Your task to perform on an android device: toggle javascript in the chrome app Image 0: 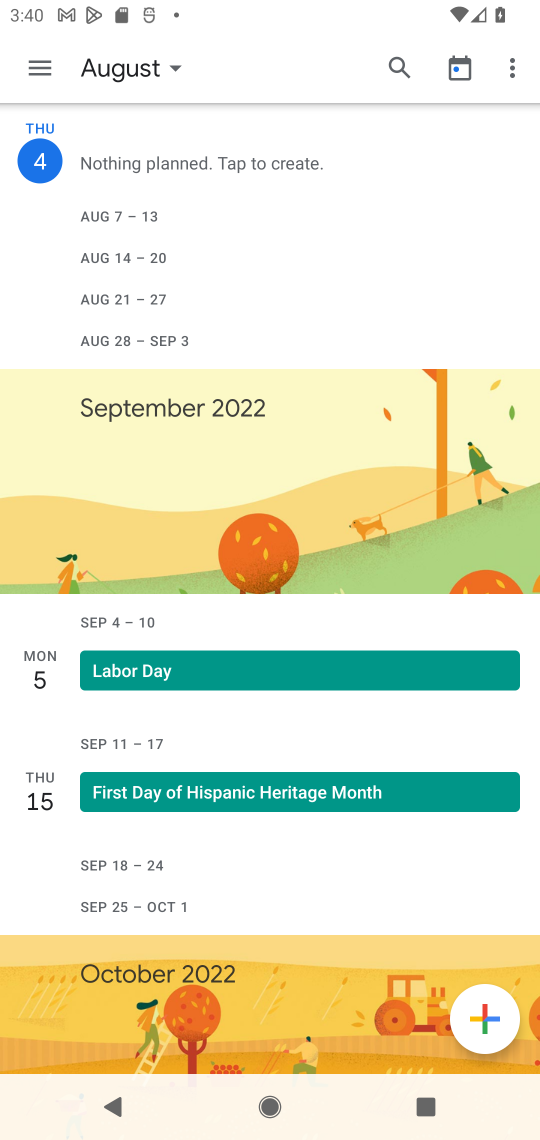
Step 0: press home button
Your task to perform on an android device: toggle javascript in the chrome app Image 1: 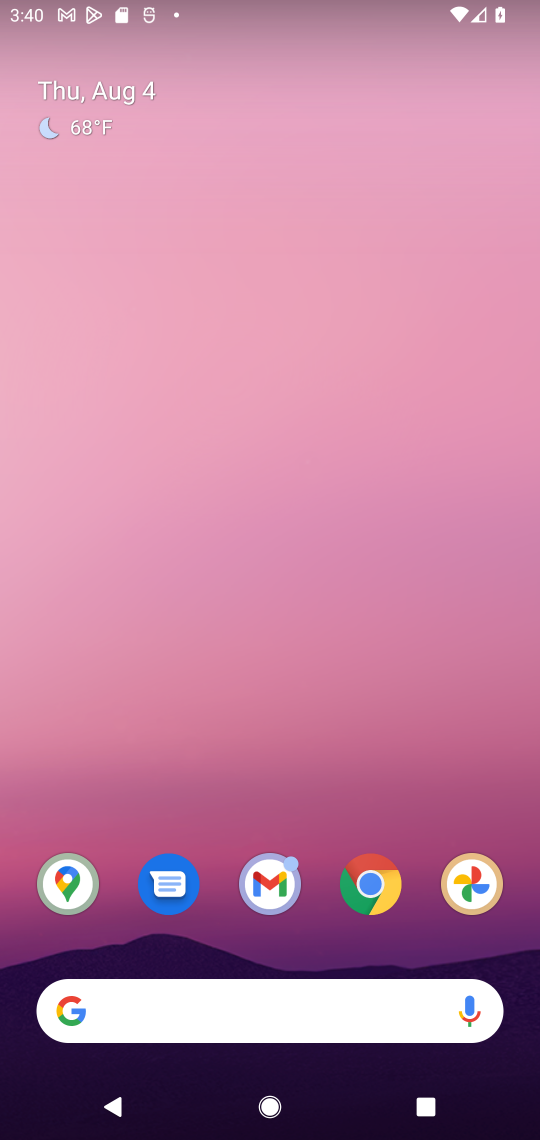
Step 1: click (366, 886)
Your task to perform on an android device: toggle javascript in the chrome app Image 2: 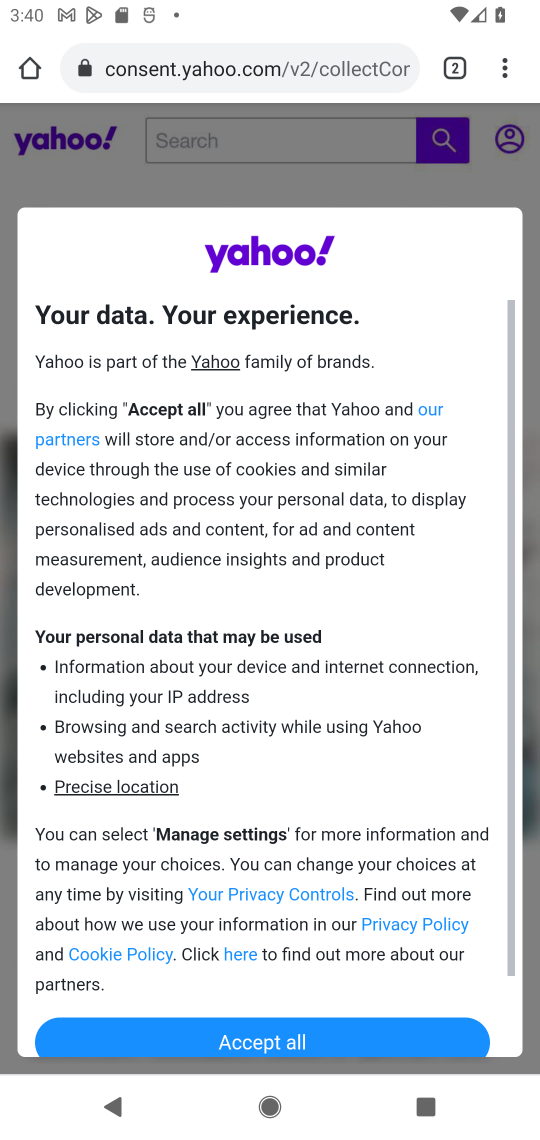
Step 2: click (503, 83)
Your task to perform on an android device: toggle javascript in the chrome app Image 3: 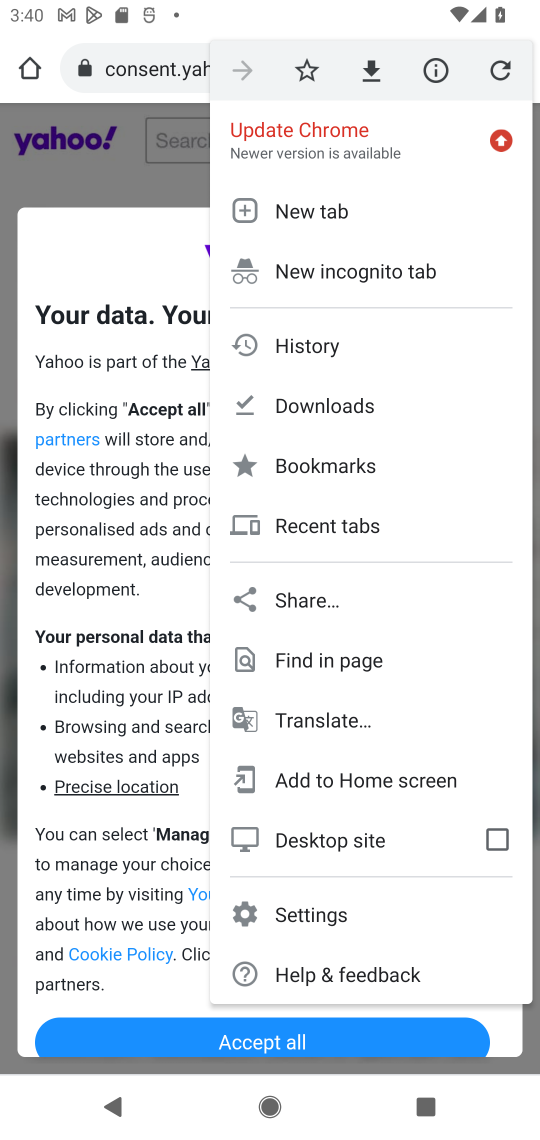
Step 3: click (330, 924)
Your task to perform on an android device: toggle javascript in the chrome app Image 4: 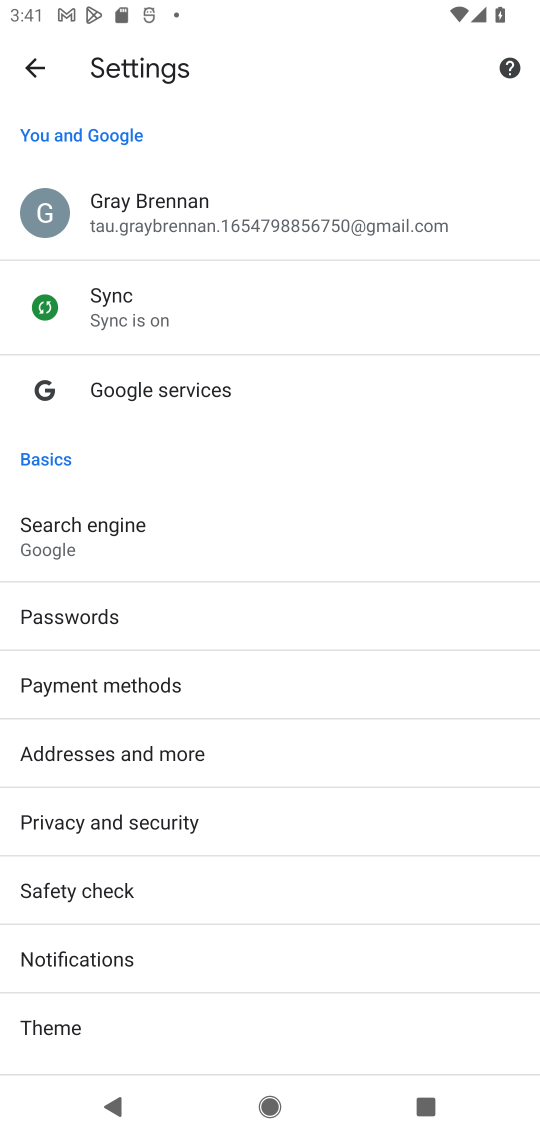
Step 4: drag from (197, 938) to (206, 500)
Your task to perform on an android device: toggle javascript in the chrome app Image 5: 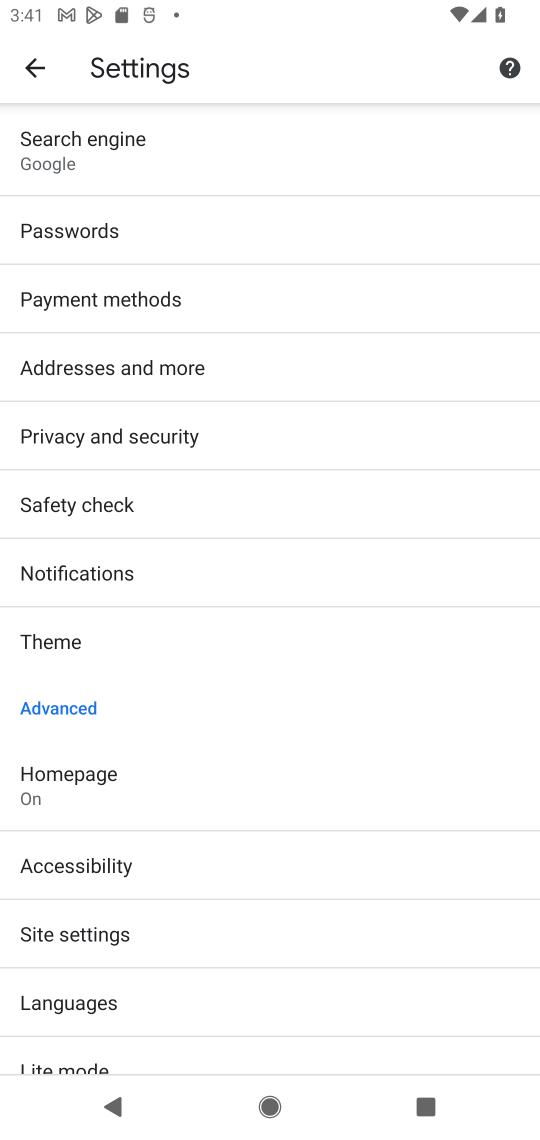
Step 5: click (143, 953)
Your task to perform on an android device: toggle javascript in the chrome app Image 6: 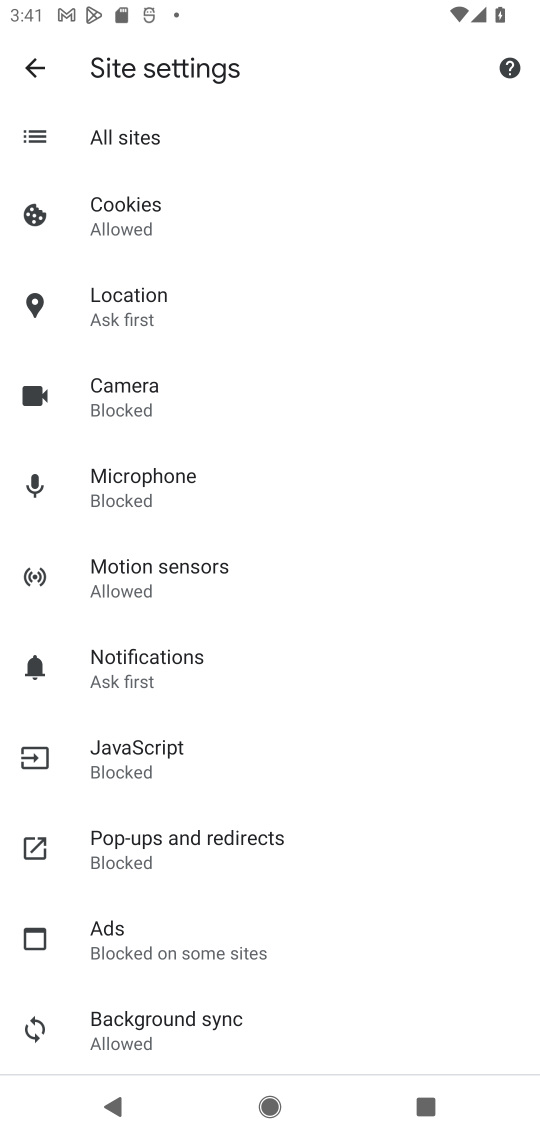
Step 6: click (243, 731)
Your task to perform on an android device: toggle javascript in the chrome app Image 7: 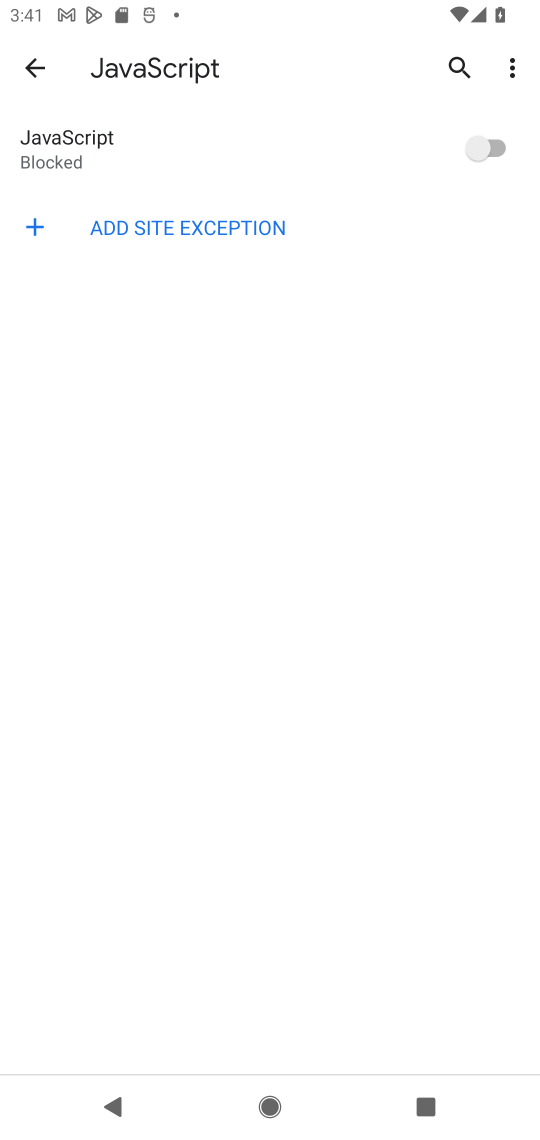
Step 7: click (522, 144)
Your task to perform on an android device: toggle javascript in the chrome app Image 8: 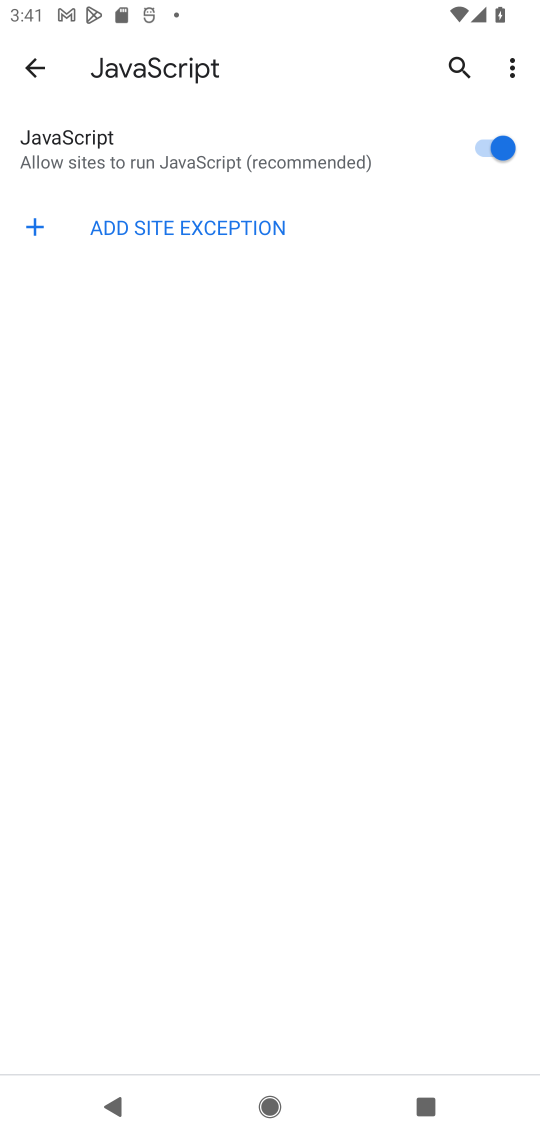
Step 8: task complete